Your task to perform on an android device: turn on data saver in the chrome app Image 0: 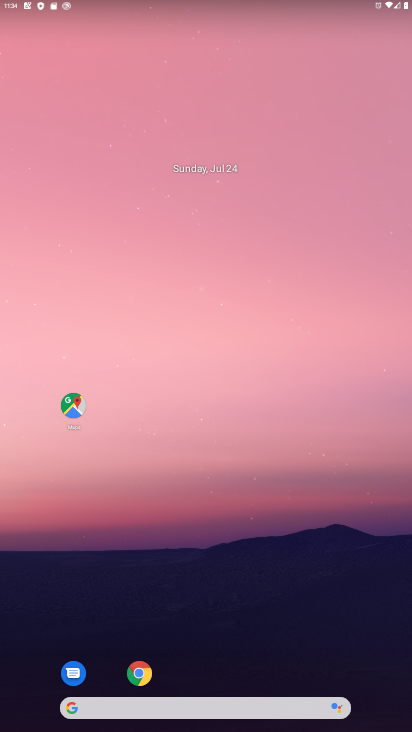
Step 0: drag from (314, 681) to (306, 33)
Your task to perform on an android device: turn on data saver in the chrome app Image 1: 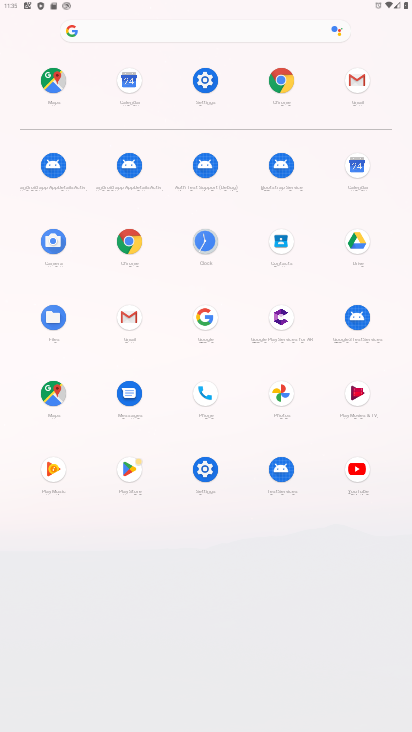
Step 1: click (284, 78)
Your task to perform on an android device: turn on data saver in the chrome app Image 2: 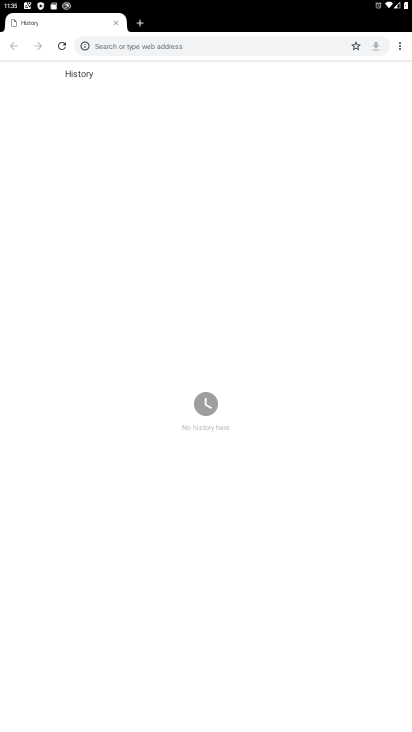
Step 2: drag from (401, 48) to (310, 230)
Your task to perform on an android device: turn on data saver in the chrome app Image 3: 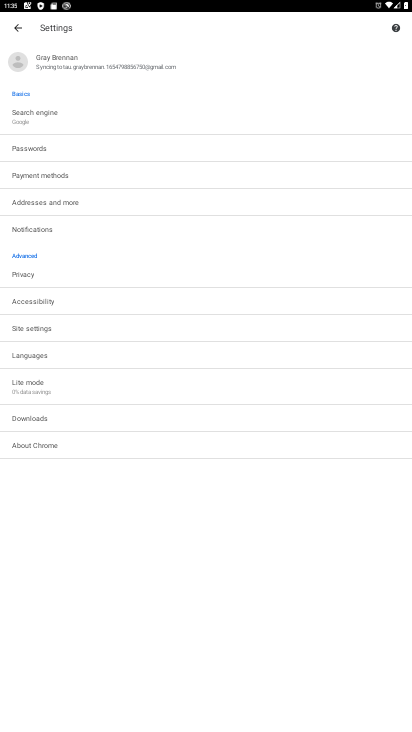
Step 3: click (57, 390)
Your task to perform on an android device: turn on data saver in the chrome app Image 4: 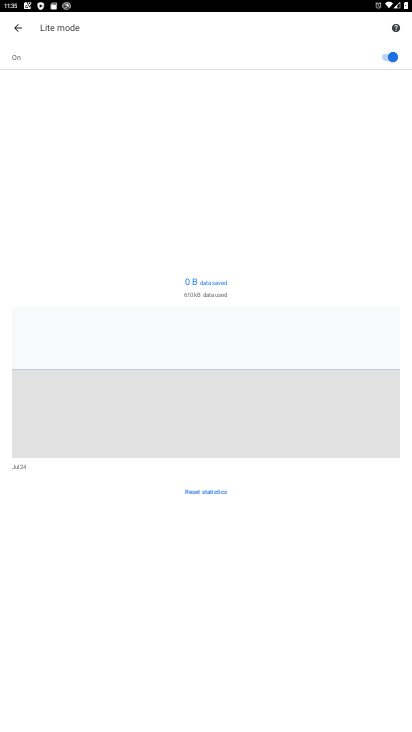
Step 4: task complete